Your task to perform on an android device: change the clock style Image 0: 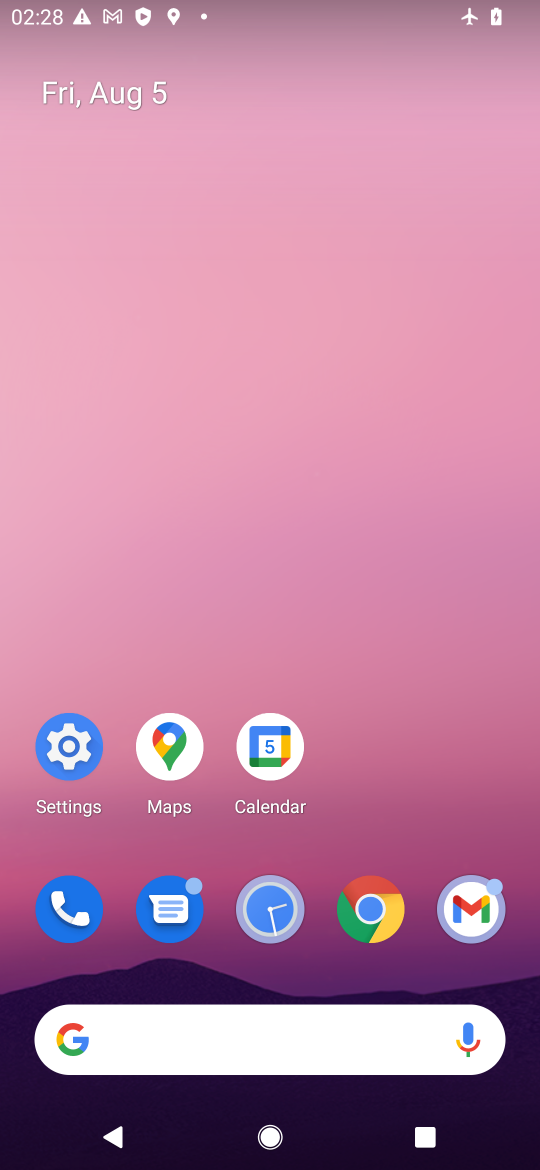
Step 0: click (257, 908)
Your task to perform on an android device: change the clock style Image 1: 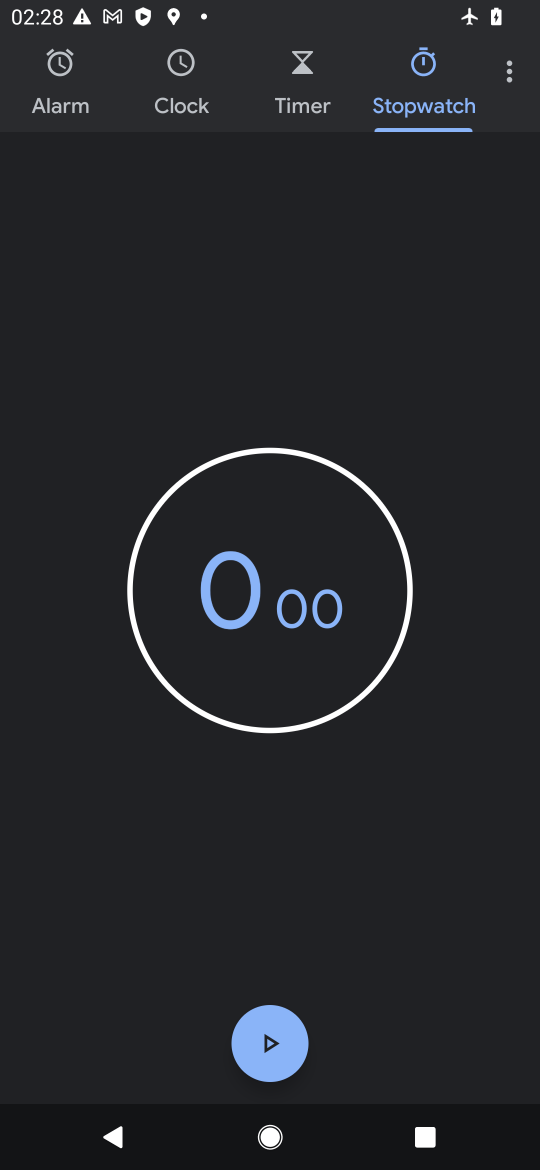
Step 1: click (519, 60)
Your task to perform on an android device: change the clock style Image 2: 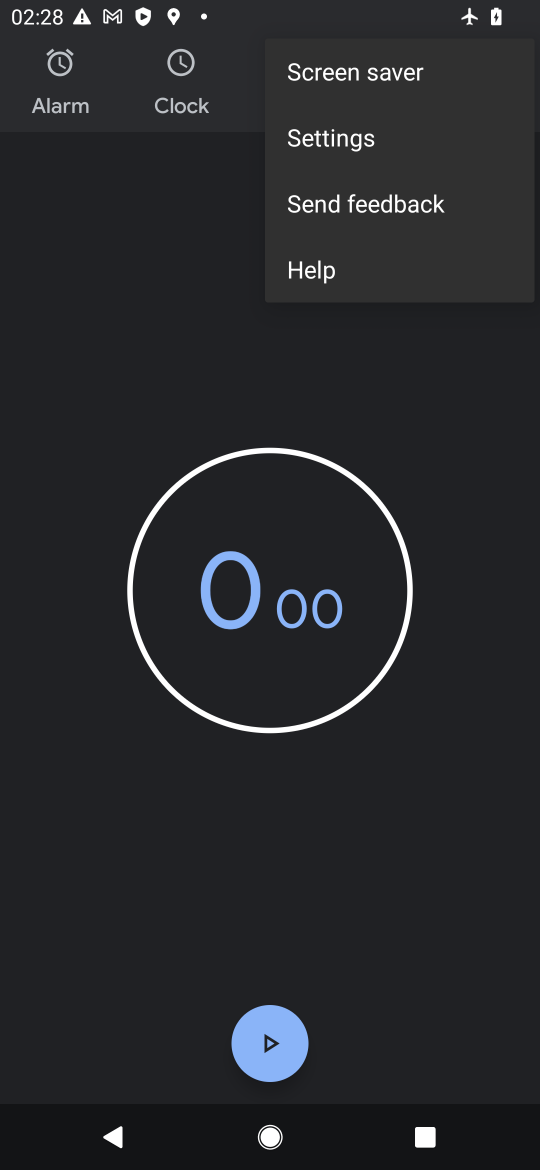
Step 2: click (363, 135)
Your task to perform on an android device: change the clock style Image 3: 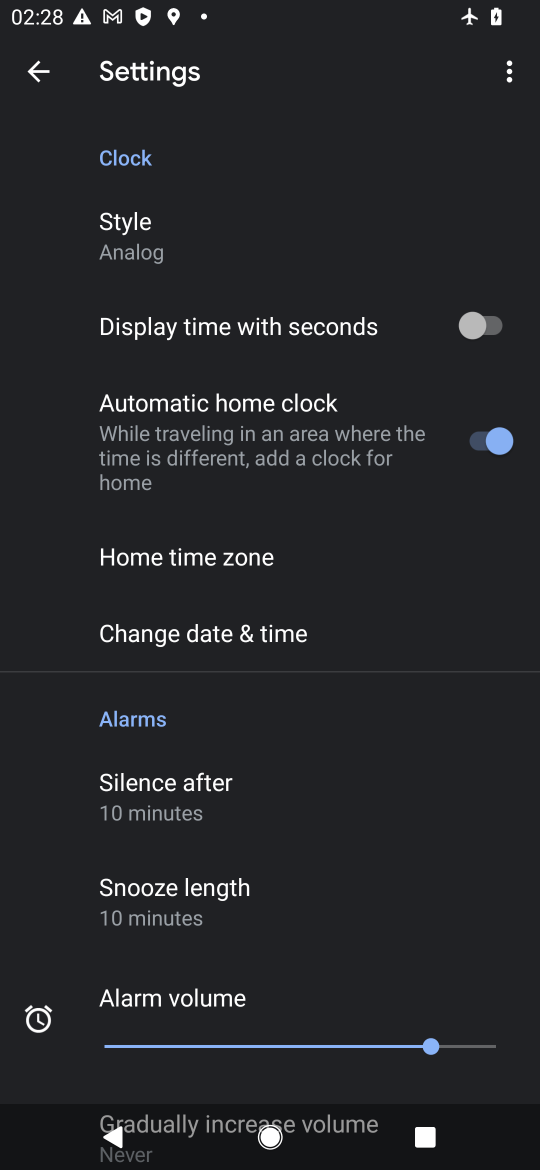
Step 3: click (128, 215)
Your task to perform on an android device: change the clock style Image 4: 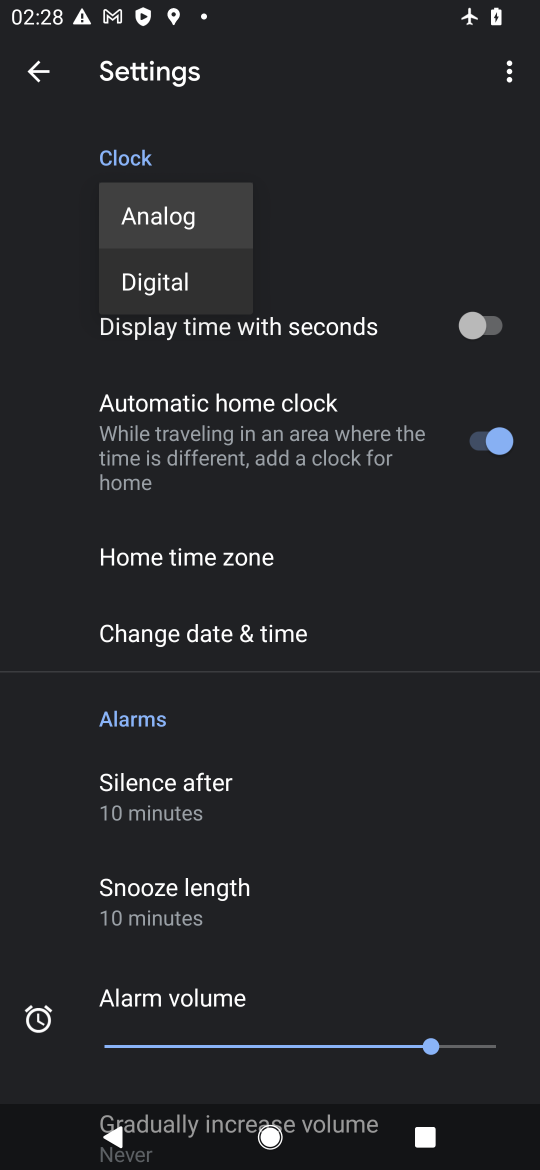
Step 4: click (136, 279)
Your task to perform on an android device: change the clock style Image 5: 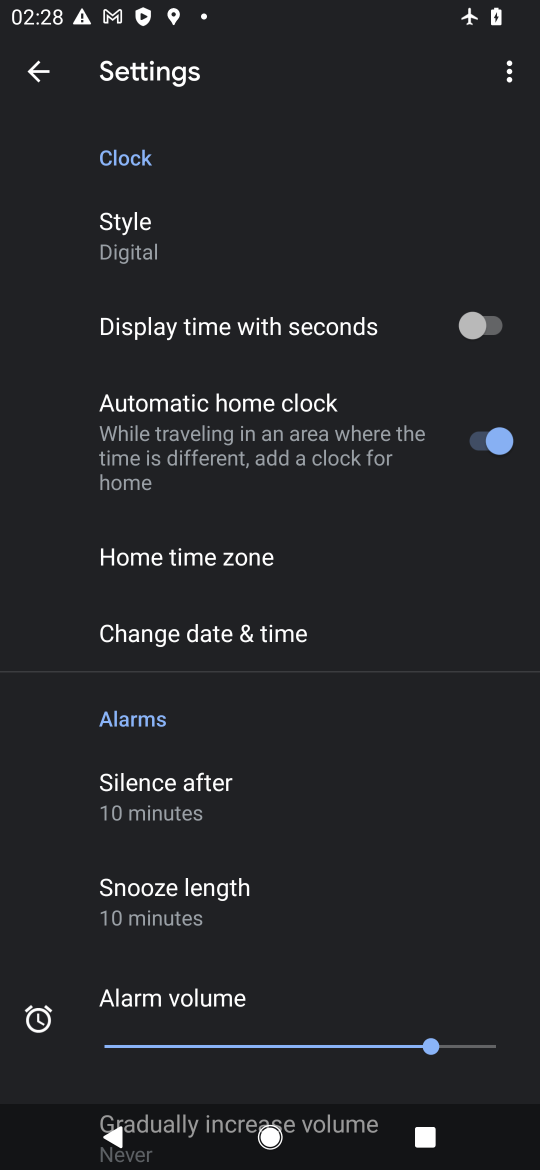
Step 5: task complete